Your task to perform on an android device: Empty the shopping cart on costco.com. Search for "bose quietcomfort 35" on costco.com, select the first entry, add it to the cart, then select checkout. Image 0: 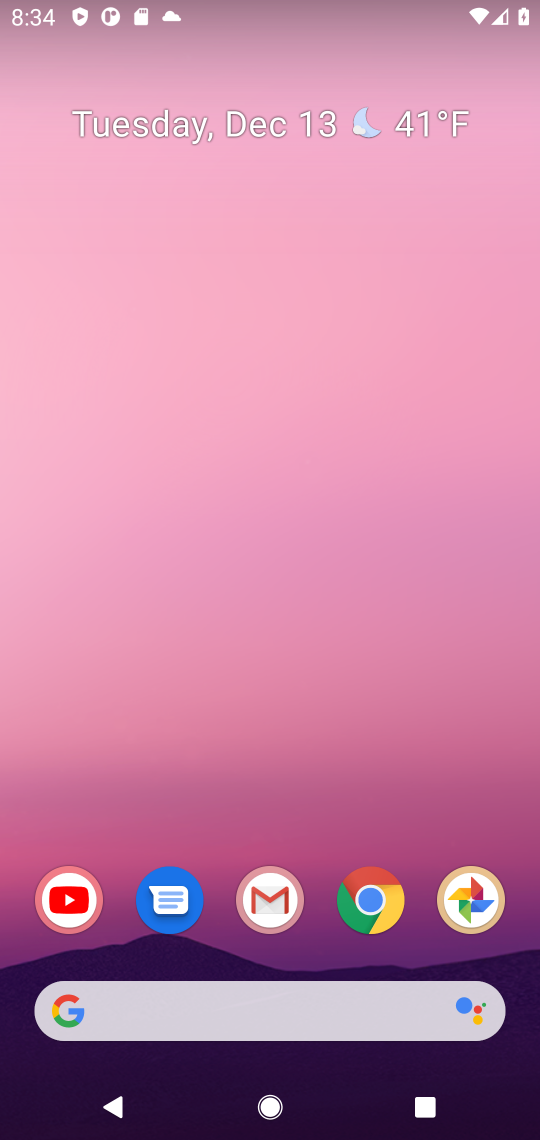
Step 0: click (379, 897)
Your task to perform on an android device: Empty the shopping cart on costco.com. Search for "bose quietcomfort 35" on costco.com, select the first entry, add it to the cart, then select checkout. Image 1: 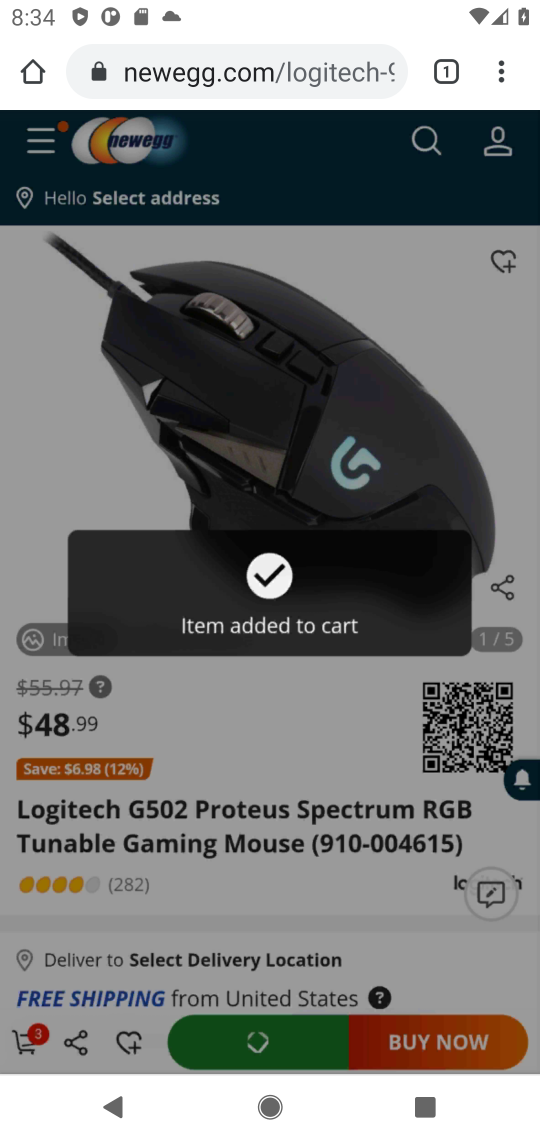
Step 1: click (274, 69)
Your task to perform on an android device: Empty the shopping cart on costco.com. Search for "bose quietcomfort 35" on costco.com, select the first entry, add it to the cart, then select checkout. Image 2: 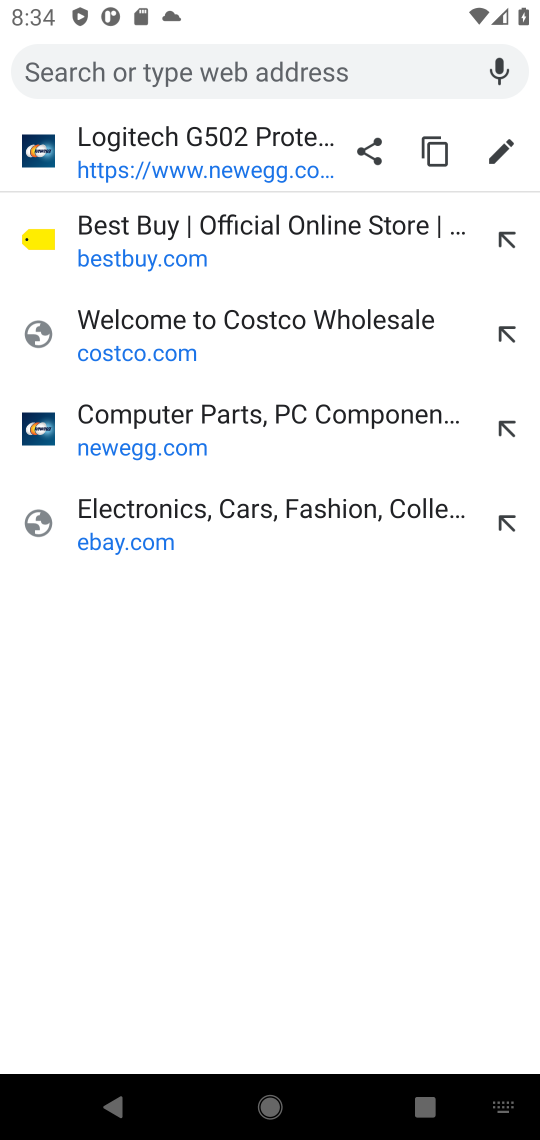
Step 2: type "costco"
Your task to perform on an android device: Empty the shopping cart on costco.com. Search for "bose quietcomfort 35" on costco.com, select the first entry, add it to the cart, then select checkout. Image 3: 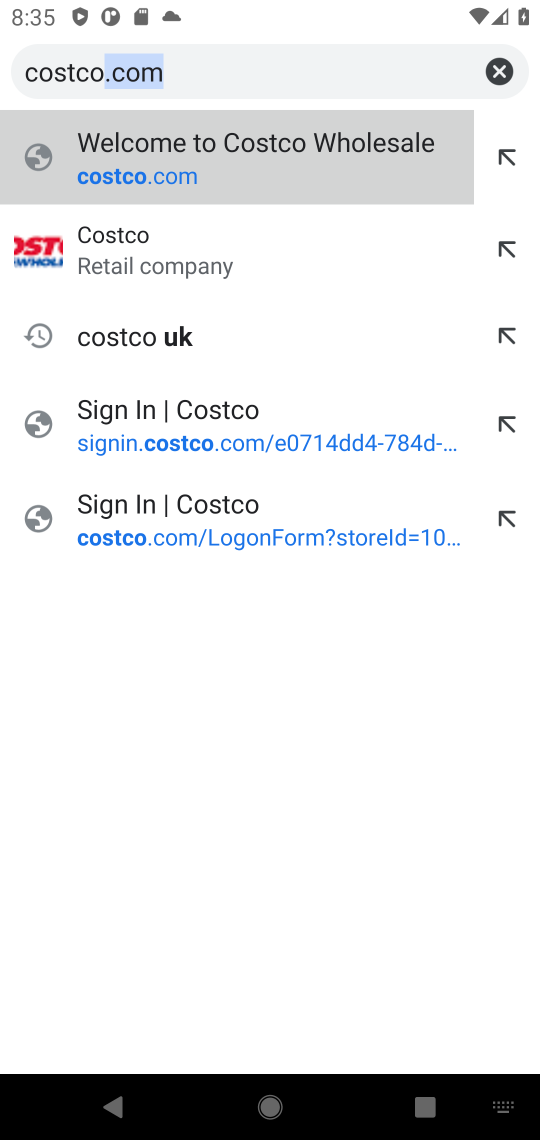
Step 3: click (210, 154)
Your task to perform on an android device: Empty the shopping cart on costco.com. Search for "bose quietcomfort 35" on costco.com, select the first entry, add it to the cart, then select checkout. Image 4: 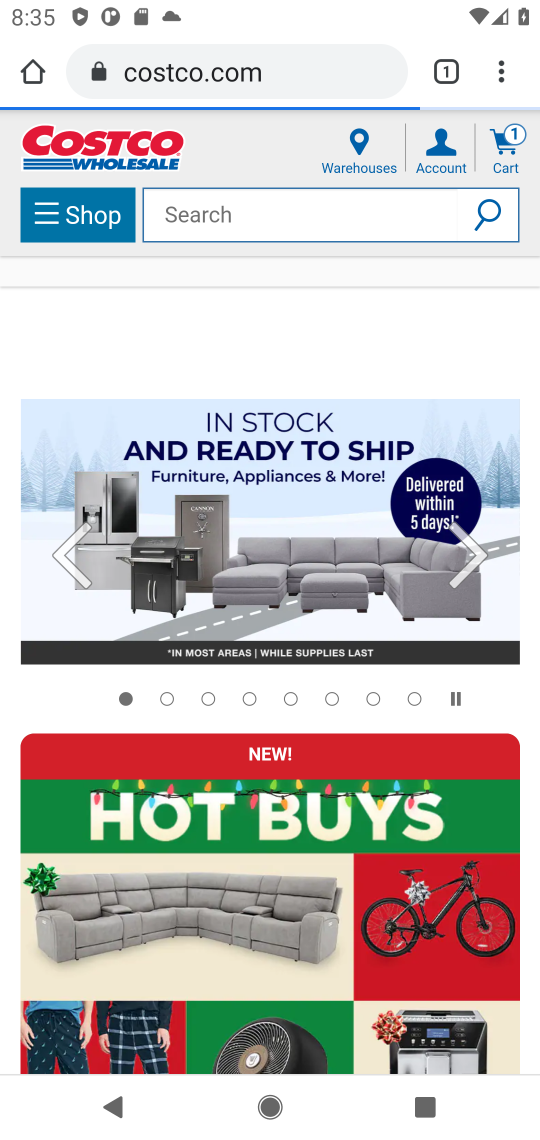
Step 4: click (505, 150)
Your task to perform on an android device: Empty the shopping cart on costco.com. Search for "bose quietcomfort 35" on costco.com, select the first entry, add it to the cart, then select checkout. Image 5: 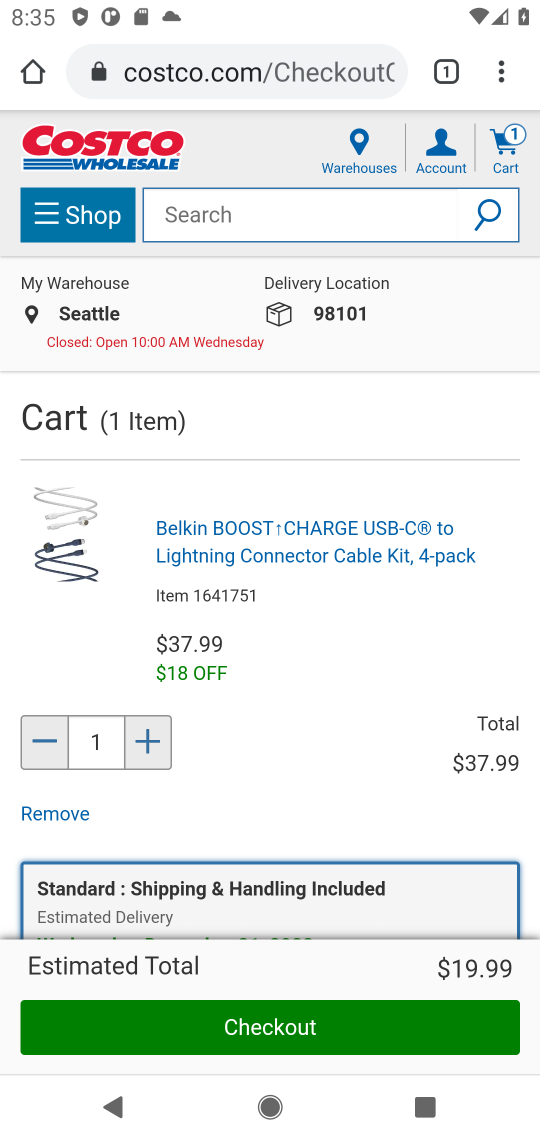
Step 5: click (55, 815)
Your task to perform on an android device: Empty the shopping cart on costco.com. Search for "bose quietcomfort 35" on costco.com, select the first entry, add it to the cart, then select checkout. Image 6: 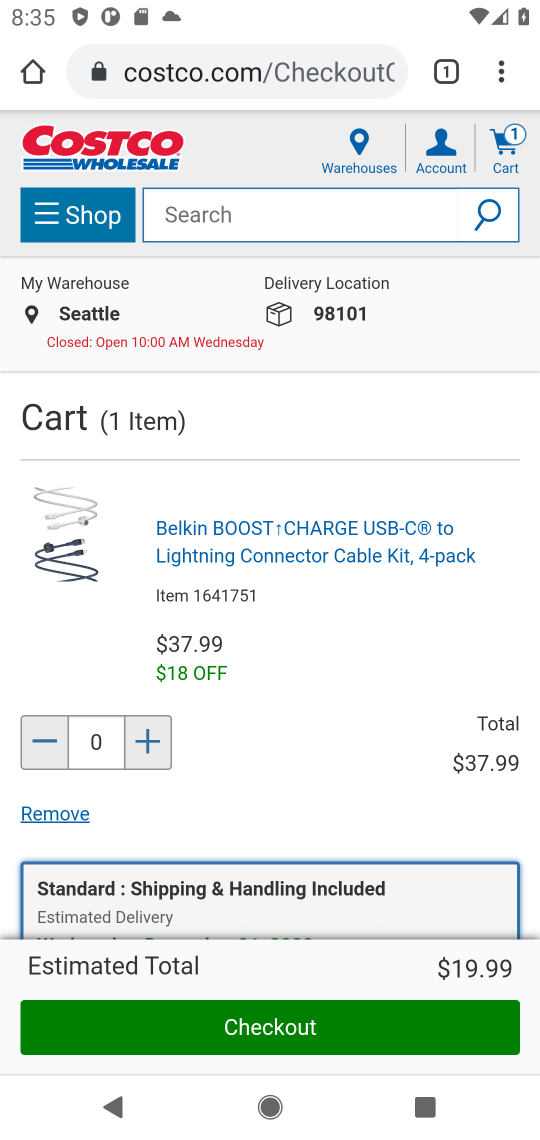
Step 6: click (57, 814)
Your task to perform on an android device: Empty the shopping cart on costco.com. Search for "bose quietcomfort 35" on costco.com, select the first entry, add it to the cart, then select checkout. Image 7: 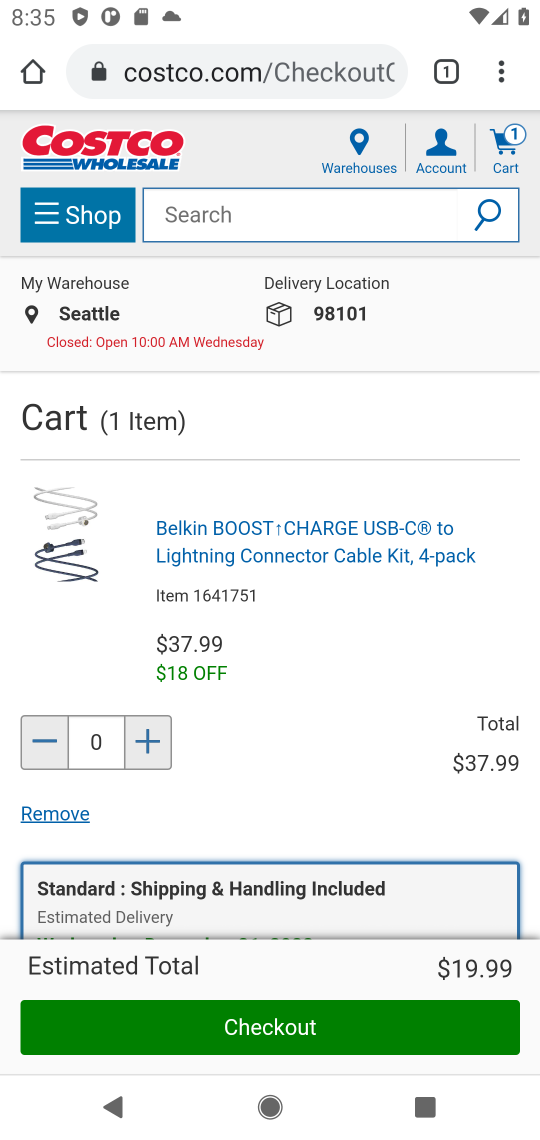
Step 7: click (54, 815)
Your task to perform on an android device: Empty the shopping cart on costco.com. Search for "bose quietcomfort 35" on costco.com, select the first entry, add it to the cart, then select checkout. Image 8: 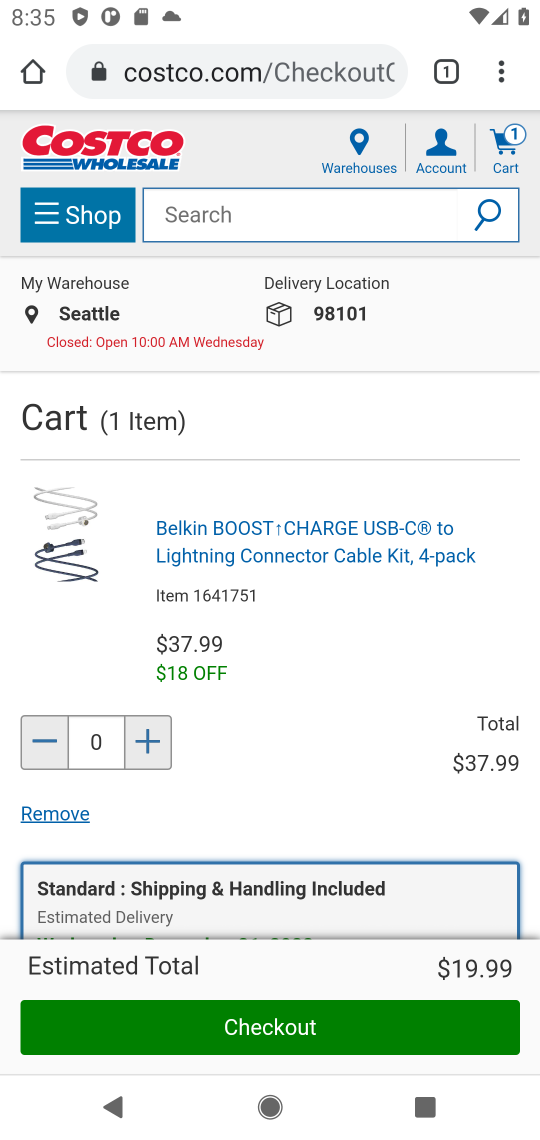
Step 8: click (54, 815)
Your task to perform on an android device: Empty the shopping cart on costco.com. Search for "bose quietcomfort 35" on costco.com, select the first entry, add it to the cart, then select checkout. Image 9: 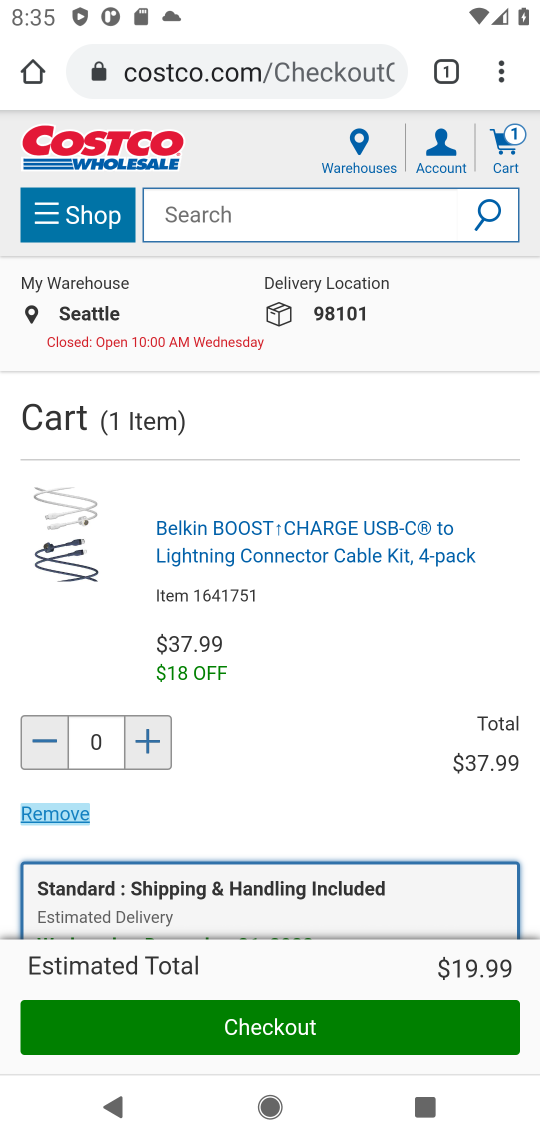
Step 9: click (54, 815)
Your task to perform on an android device: Empty the shopping cart on costco.com. Search for "bose quietcomfort 35" on costco.com, select the first entry, add it to the cart, then select checkout. Image 10: 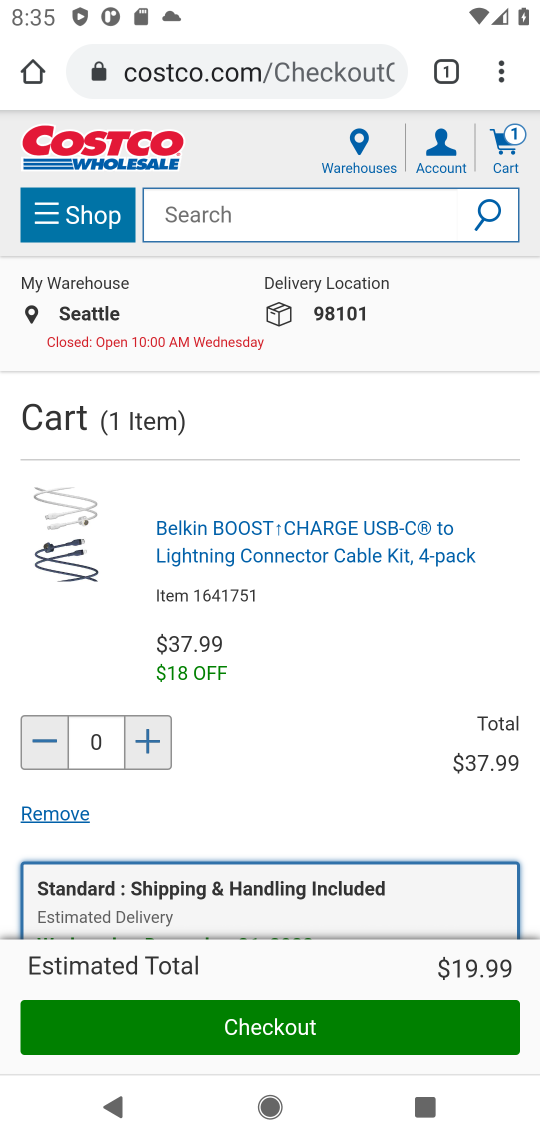
Step 10: click (51, 816)
Your task to perform on an android device: Empty the shopping cart on costco.com. Search for "bose quietcomfort 35" on costco.com, select the first entry, add it to the cart, then select checkout. Image 11: 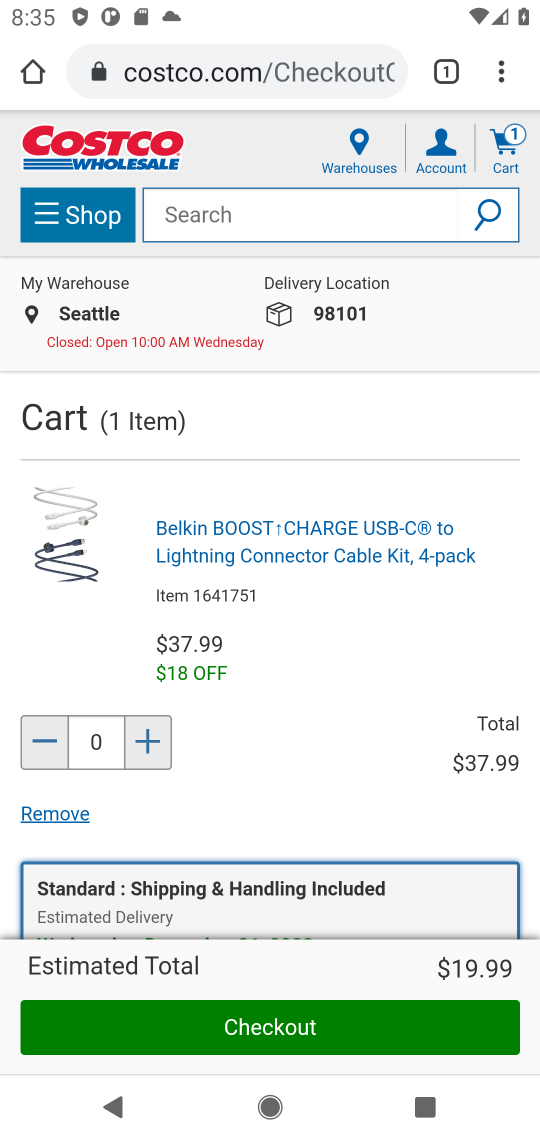
Step 11: click (51, 816)
Your task to perform on an android device: Empty the shopping cart on costco.com. Search for "bose quietcomfort 35" on costco.com, select the first entry, add it to the cart, then select checkout. Image 12: 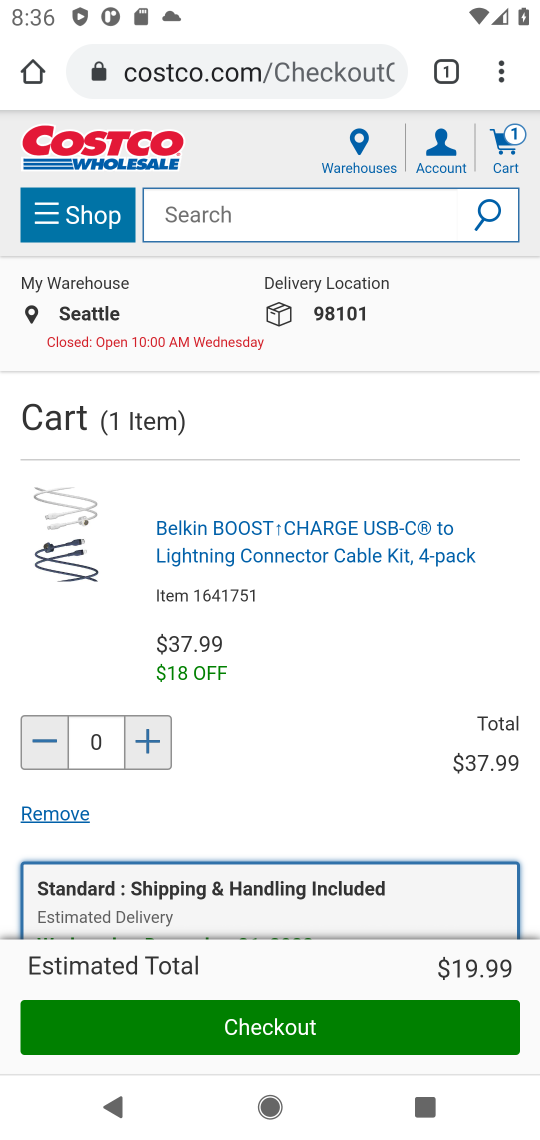
Step 12: task complete